Your task to perform on an android device: open chrome and create a bookmark for the current page Image 0: 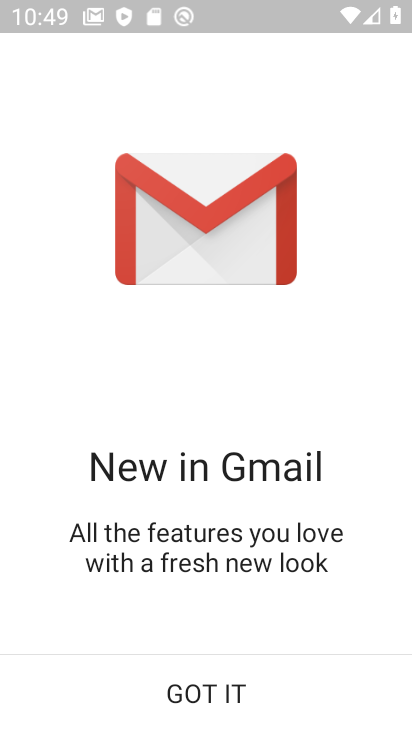
Step 0: press home button
Your task to perform on an android device: open chrome and create a bookmark for the current page Image 1: 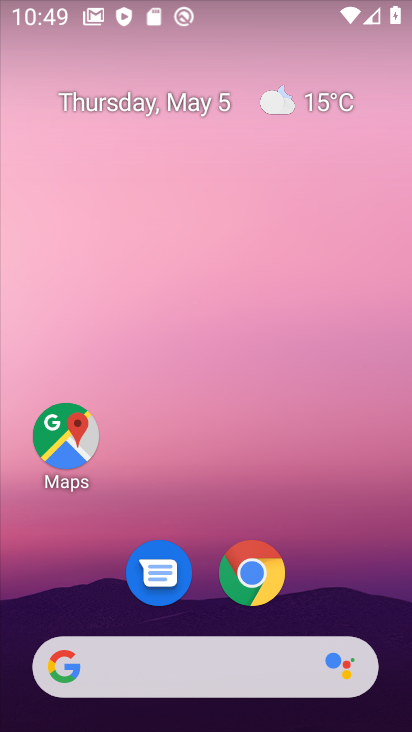
Step 1: click (242, 579)
Your task to perform on an android device: open chrome and create a bookmark for the current page Image 2: 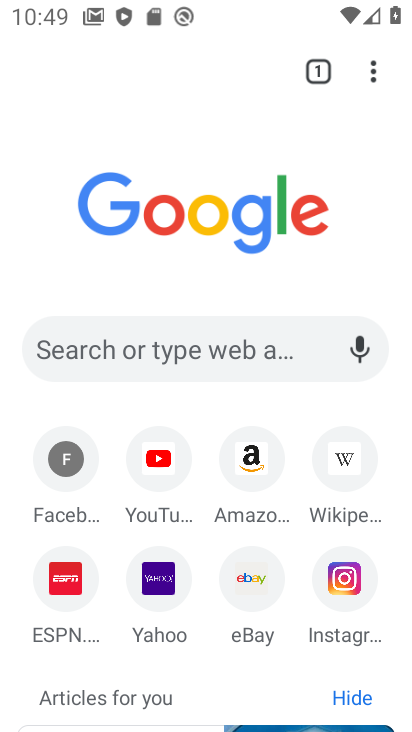
Step 2: click (169, 361)
Your task to perform on an android device: open chrome and create a bookmark for the current page Image 3: 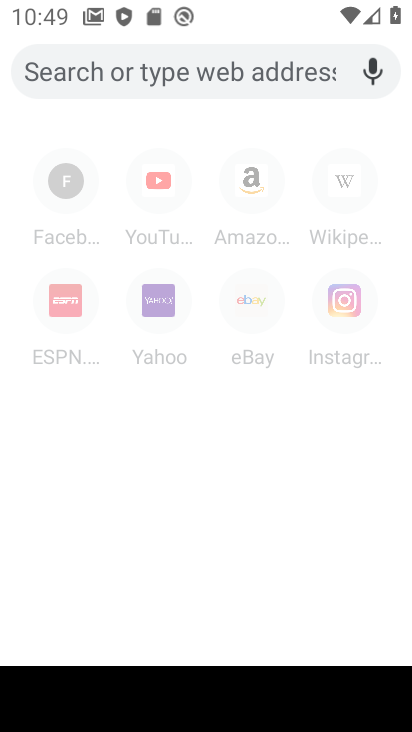
Step 3: type "netflix.com"
Your task to perform on an android device: open chrome and create a bookmark for the current page Image 4: 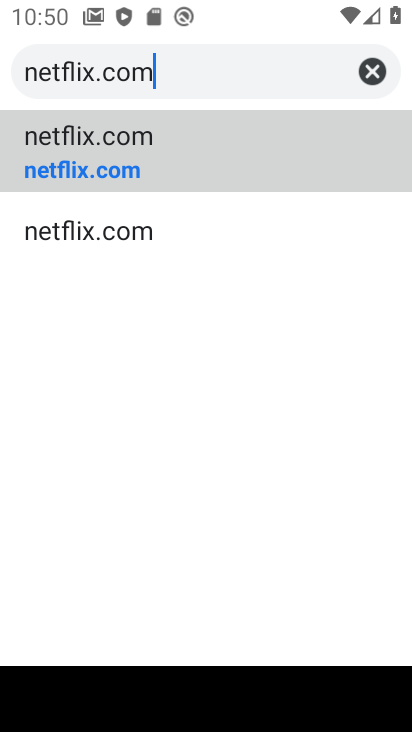
Step 4: click (127, 177)
Your task to perform on an android device: open chrome and create a bookmark for the current page Image 5: 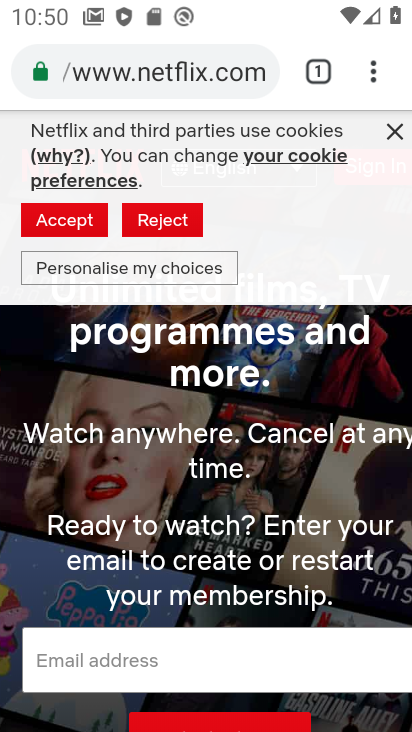
Step 5: click (376, 76)
Your task to perform on an android device: open chrome and create a bookmark for the current page Image 6: 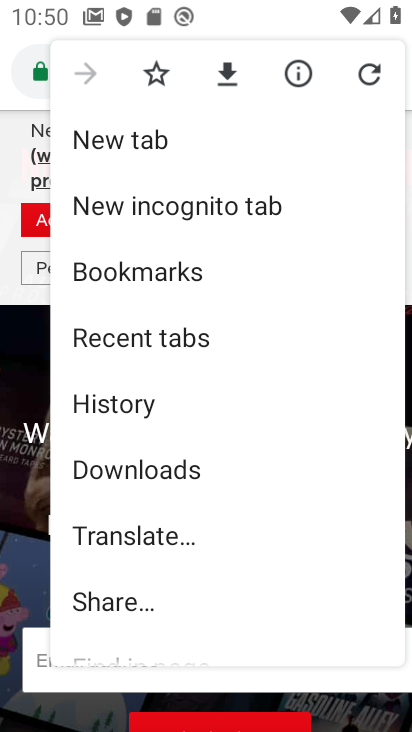
Step 6: click (141, 71)
Your task to perform on an android device: open chrome and create a bookmark for the current page Image 7: 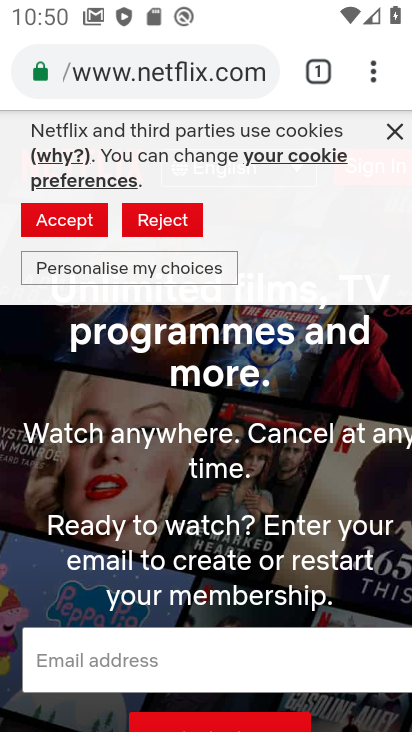
Step 7: click (376, 78)
Your task to perform on an android device: open chrome and create a bookmark for the current page Image 8: 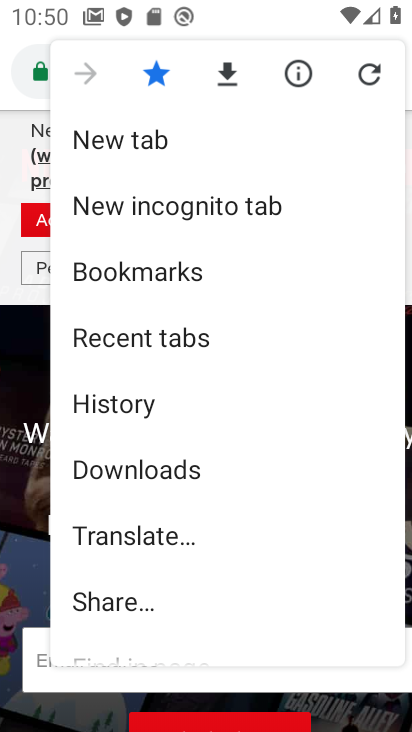
Step 8: task complete